Your task to perform on an android device: Go to Android settings Image 0: 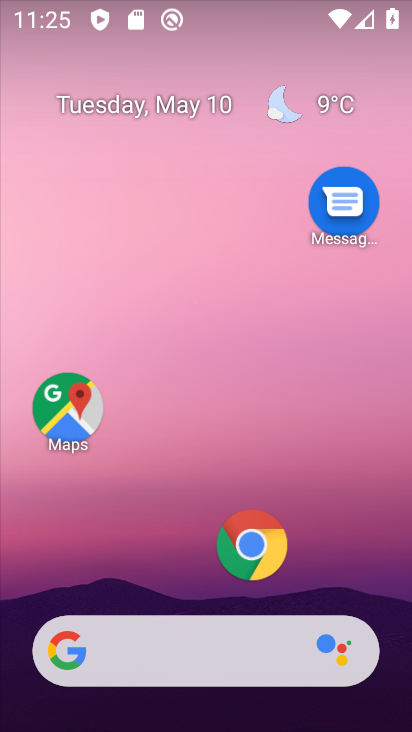
Step 0: drag from (242, 117) to (226, 69)
Your task to perform on an android device: Go to Android settings Image 1: 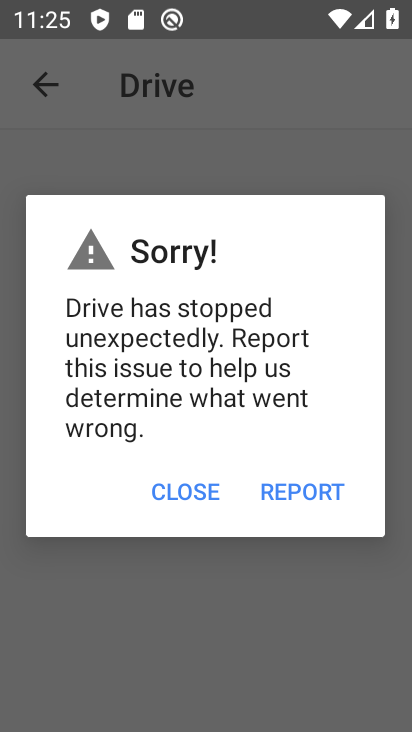
Step 1: press home button
Your task to perform on an android device: Go to Android settings Image 2: 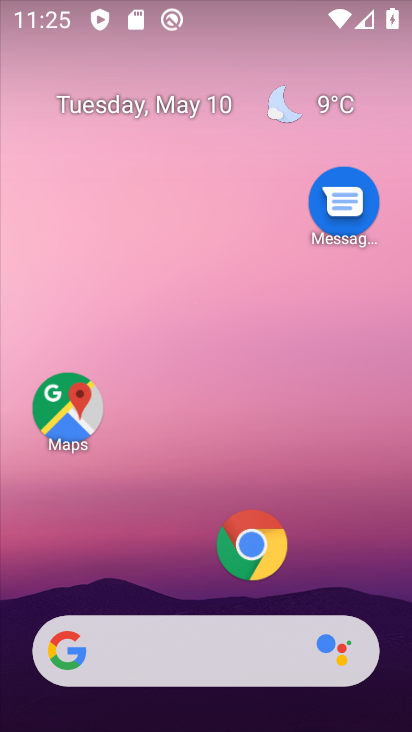
Step 2: drag from (152, 603) to (225, 59)
Your task to perform on an android device: Go to Android settings Image 3: 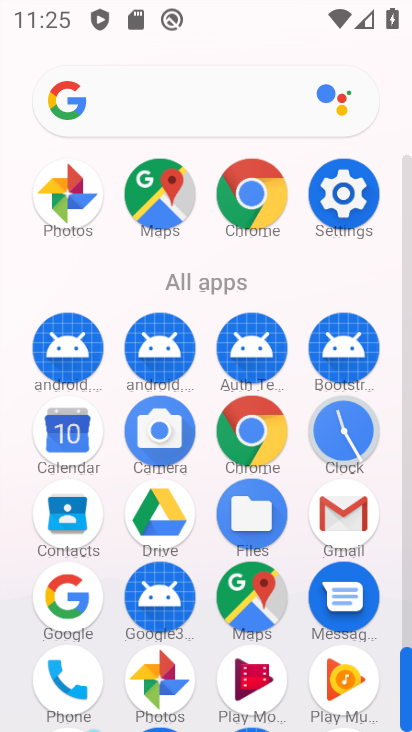
Step 3: drag from (142, 640) to (218, 339)
Your task to perform on an android device: Go to Android settings Image 4: 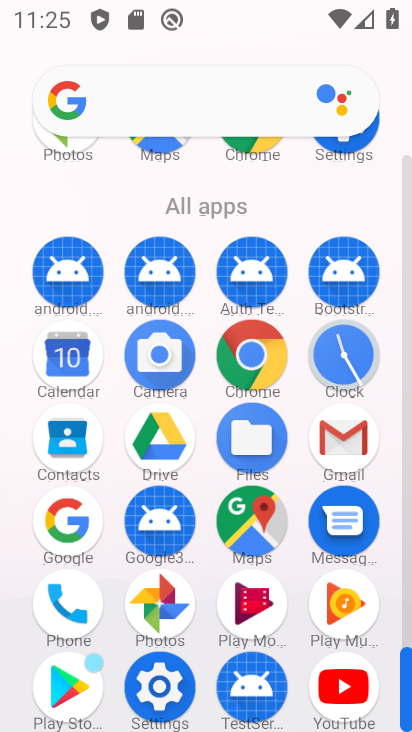
Step 4: click (165, 671)
Your task to perform on an android device: Go to Android settings Image 5: 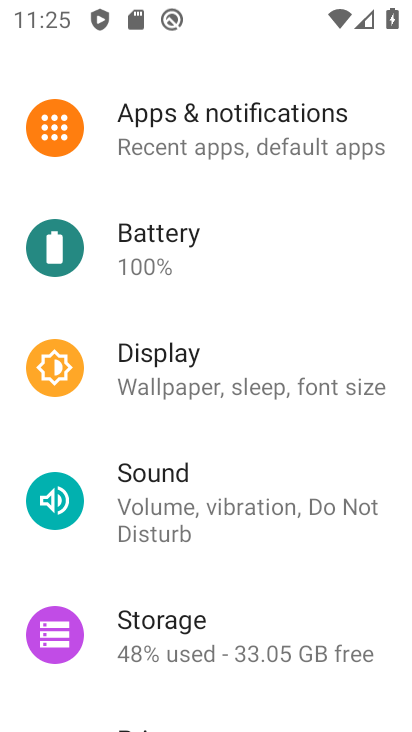
Step 5: task complete